Your task to perform on an android device: open a new tab in the chrome app Image 0: 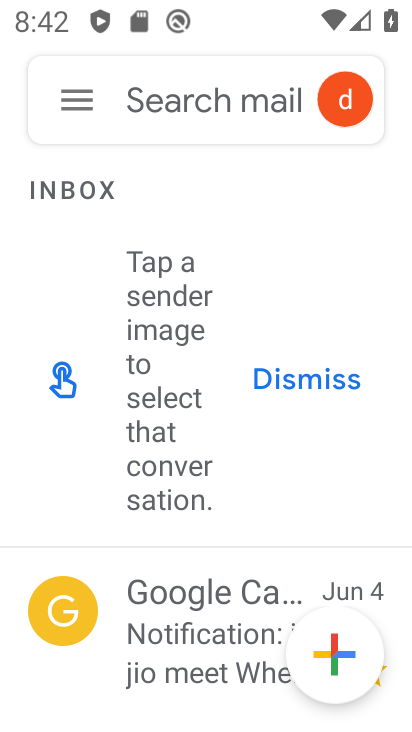
Step 0: type "Redd"
Your task to perform on an android device: open a new tab in the chrome app Image 1: 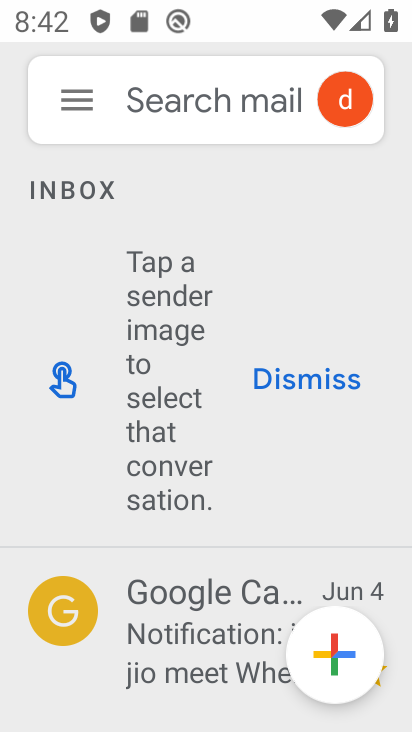
Step 1: press home button
Your task to perform on an android device: open a new tab in the chrome app Image 2: 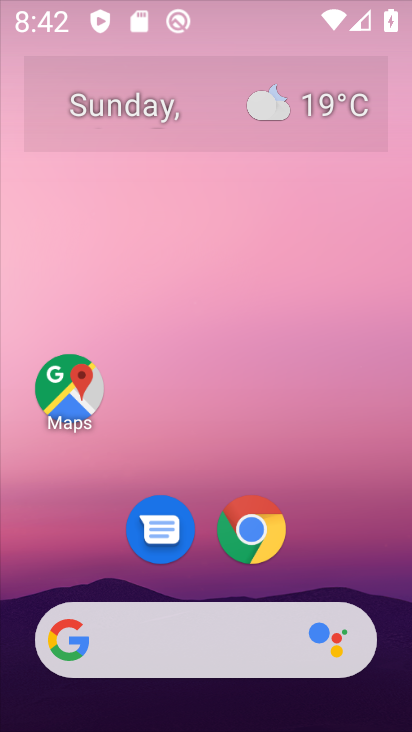
Step 2: click (237, 543)
Your task to perform on an android device: open a new tab in the chrome app Image 3: 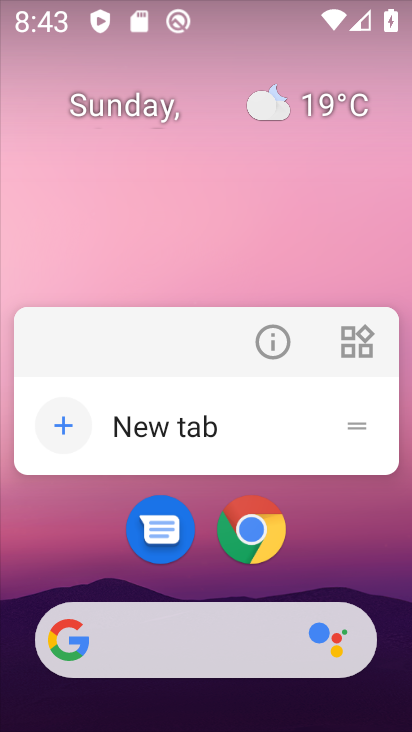
Step 3: click (242, 538)
Your task to perform on an android device: open a new tab in the chrome app Image 4: 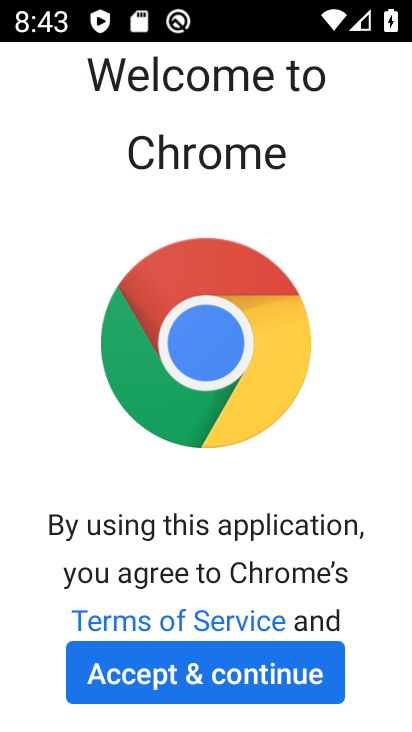
Step 4: click (238, 679)
Your task to perform on an android device: open a new tab in the chrome app Image 5: 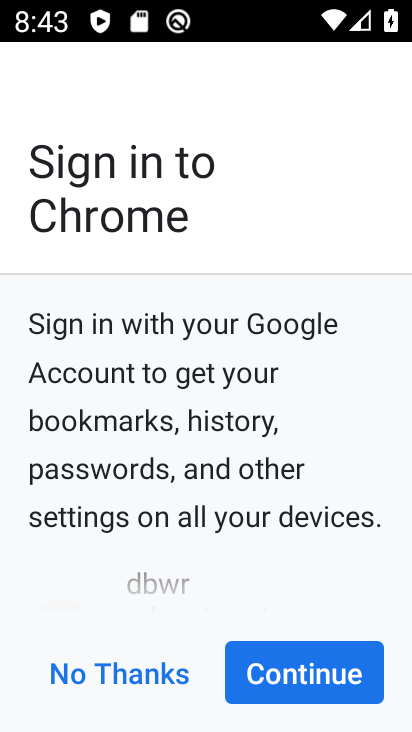
Step 5: click (285, 663)
Your task to perform on an android device: open a new tab in the chrome app Image 6: 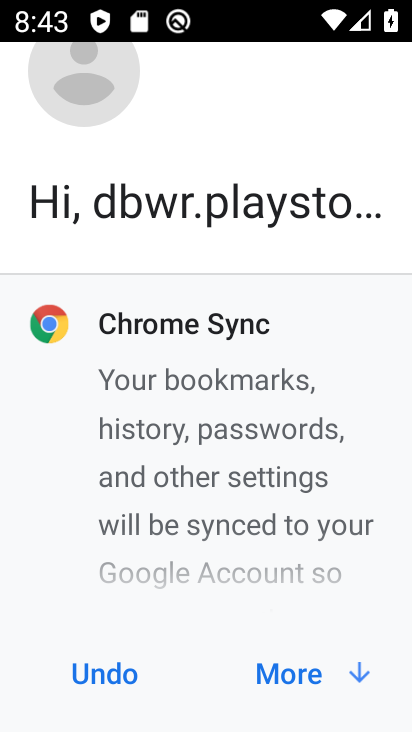
Step 6: click (267, 679)
Your task to perform on an android device: open a new tab in the chrome app Image 7: 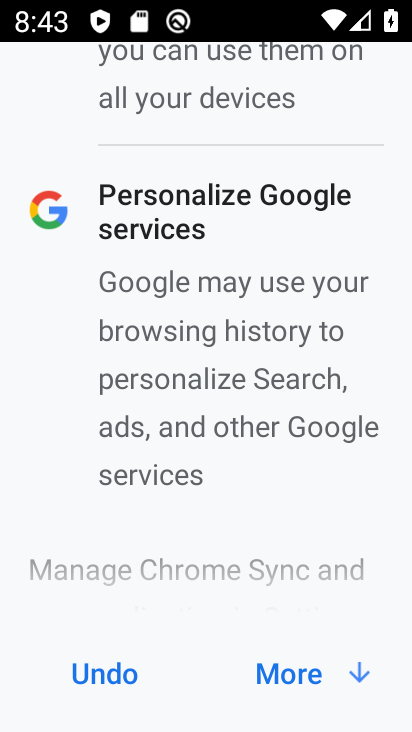
Step 7: click (283, 664)
Your task to perform on an android device: open a new tab in the chrome app Image 8: 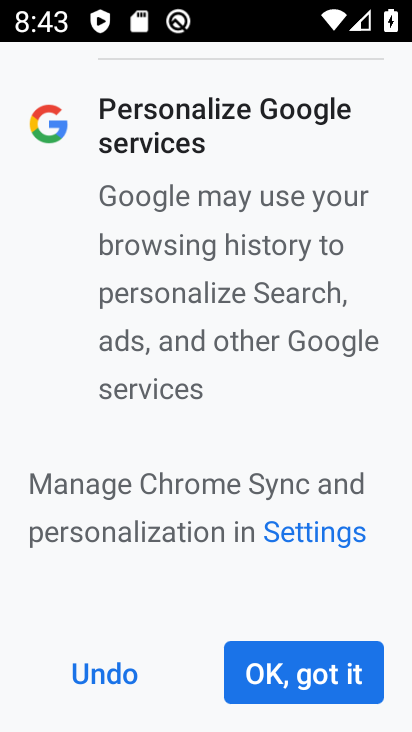
Step 8: click (289, 679)
Your task to perform on an android device: open a new tab in the chrome app Image 9: 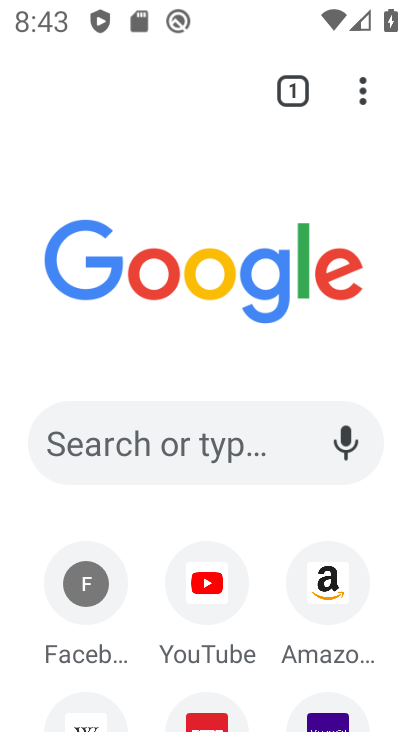
Step 9: task complete